Your task to perform on an android device: open wifi settings Image 0: 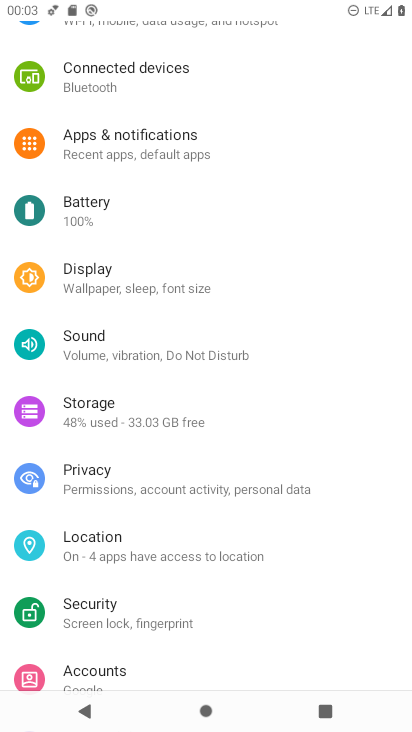
Step 0: drag from (243, 302) to (286, 714)
Your task to perform on an android device: open wifi settings Image 1: 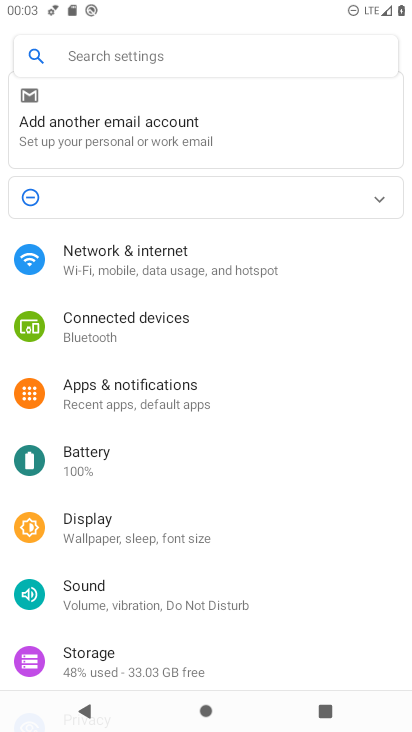
Step 1: click (107, 241)
Your task to perform on an android device: open wifi settings Image 2: 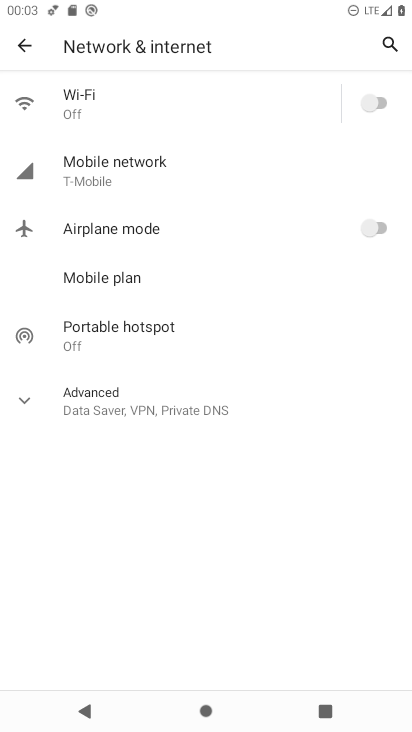
Step 2: click (156, 95)
Your task to perform on an android device: open wifi settings Image 3: 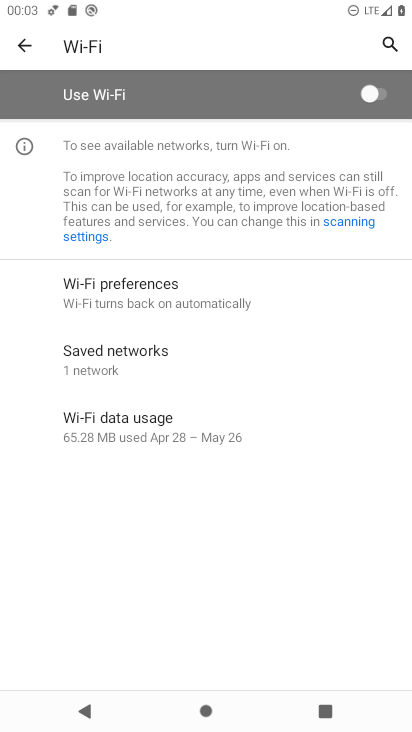
Step 3: task complete